Your task to perform on an android device: change timer sound Image 0: 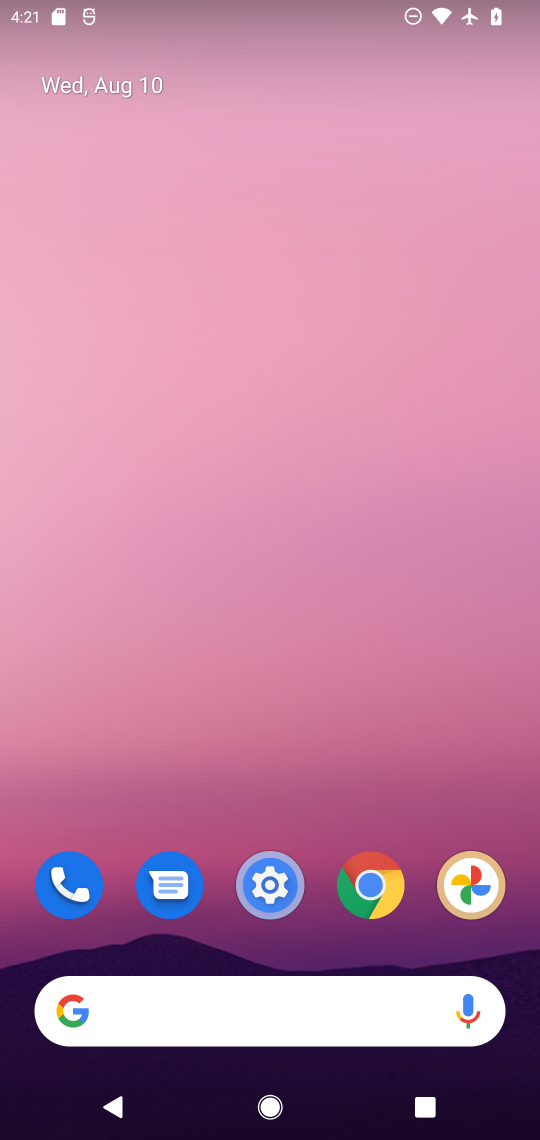
Step 0: drag from (326, 958) to (235, 179)
Your task to perform on an android device: change timer sound Image 1: 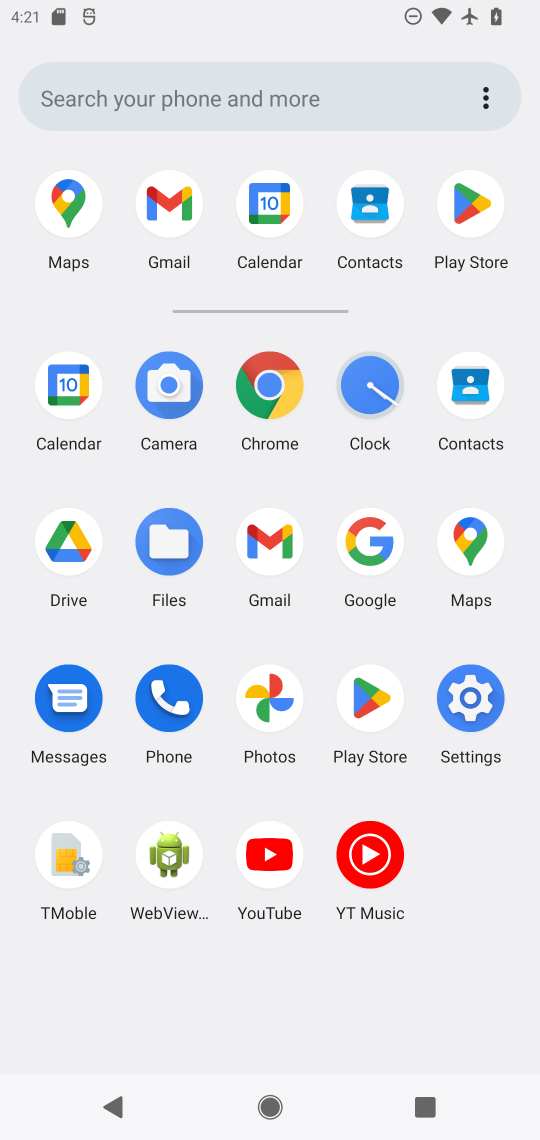
Step 1: click (364, 388)
Your task to perform on an android device: change timer sound Image 2: 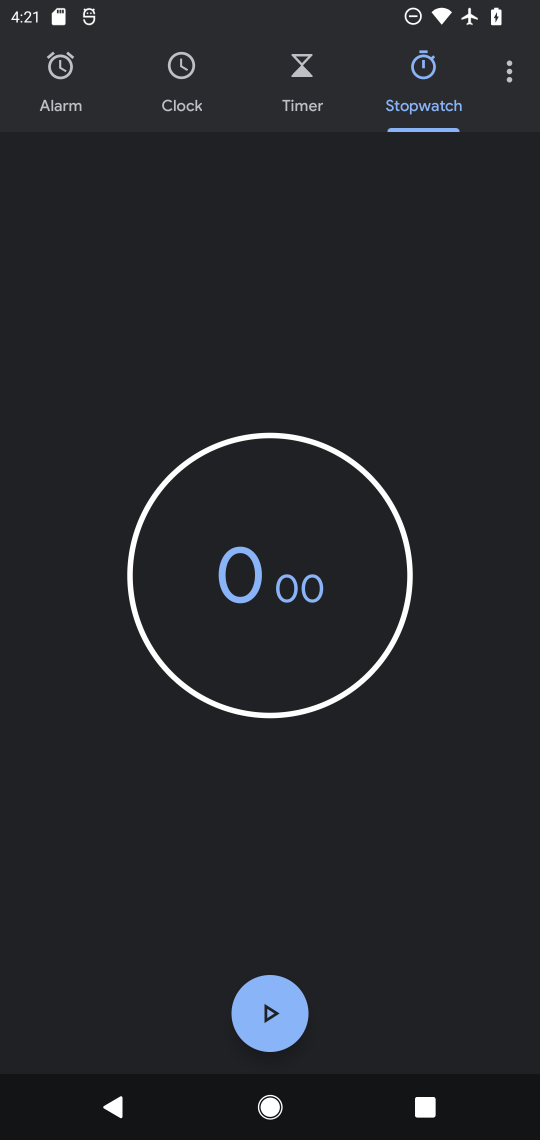
Step 2: click (509, 61)
Your task to perform on an android device: change timer sound Image 3: 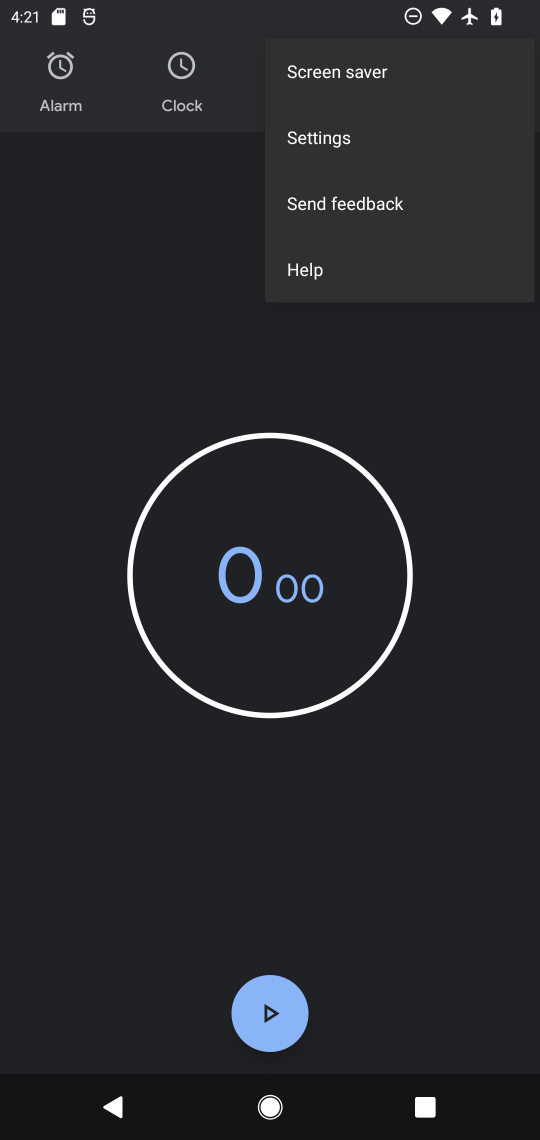
Step 3: click (319, 142)
Your task to perform on an android device: change timer sound Image 4: 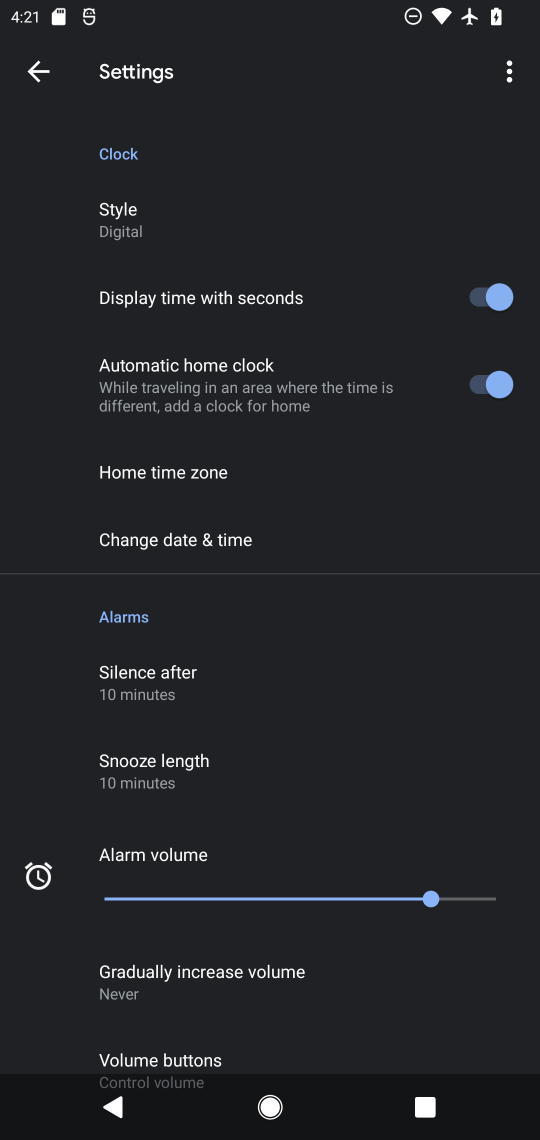
Step 4: drag from (319, 788) to (306, 247)
Your task to perform on an android device: change timer sound Image 5: 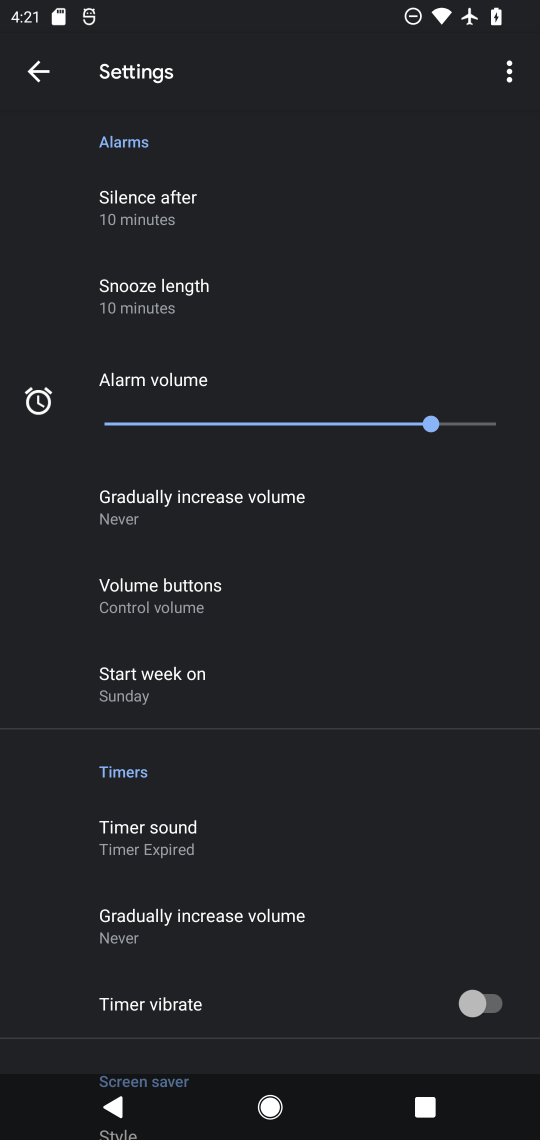
Step 5: click (179, 821)
Your task to perform on an android device: change timer sound Image 6: 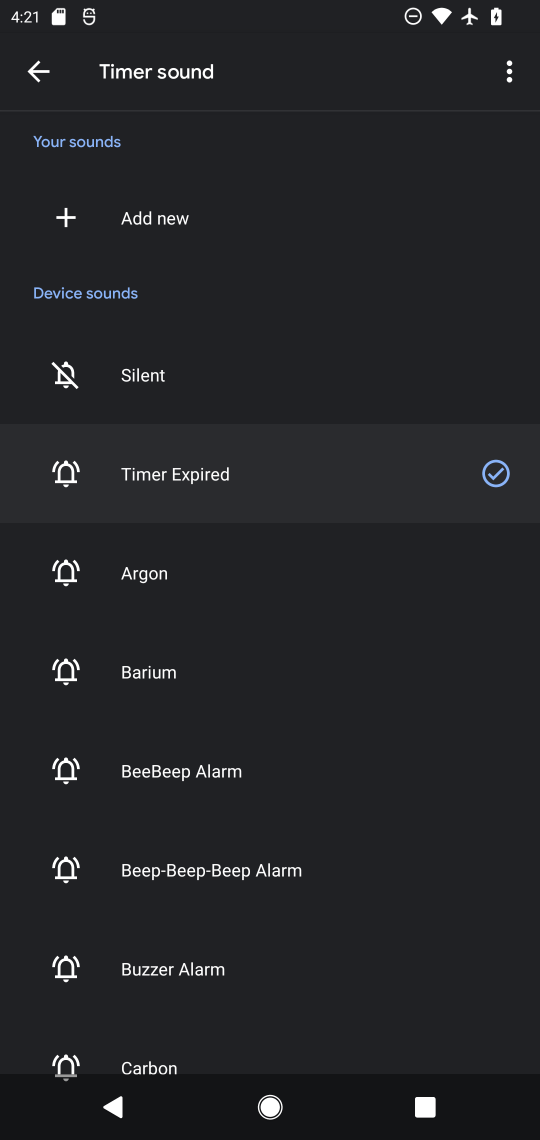
Step 6: click (145, 571)
Your task to perform on an android device: change timer sound Image 7: 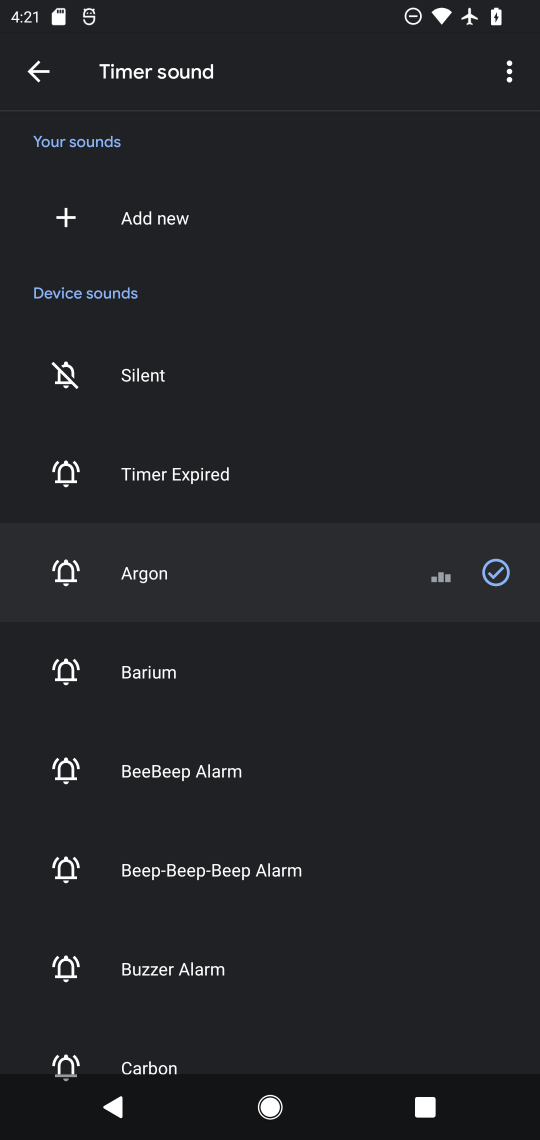
Step 7: task complete